Your task to perform on an android device: Check the weather Image 0: 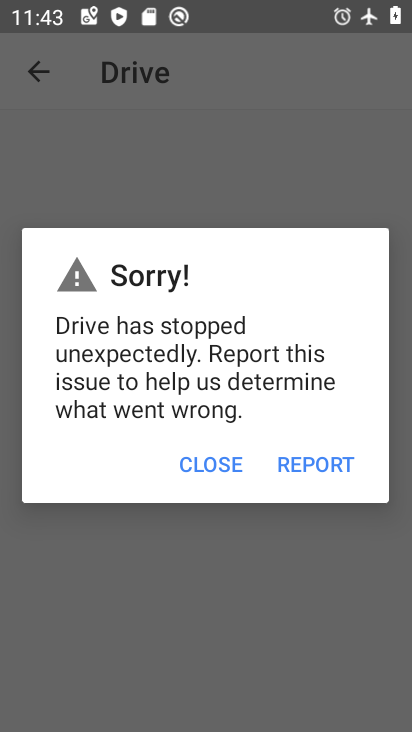
Step 0: press home button
Your task to perform on an android device: Check the weather Image 1: 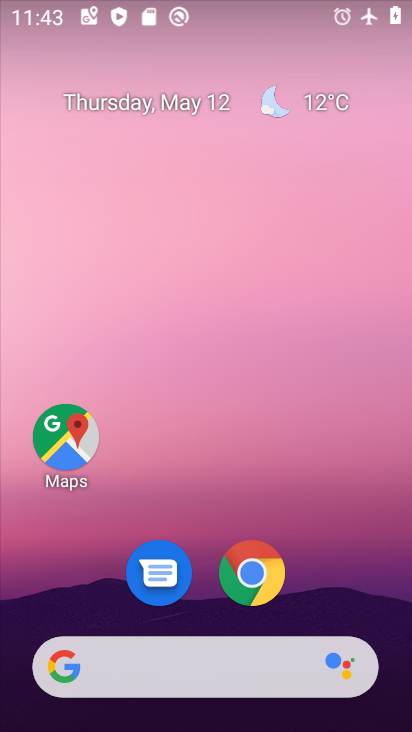
Step 1: click (254, 659)
Your task to perform on an android device: Check the weather Image 2: 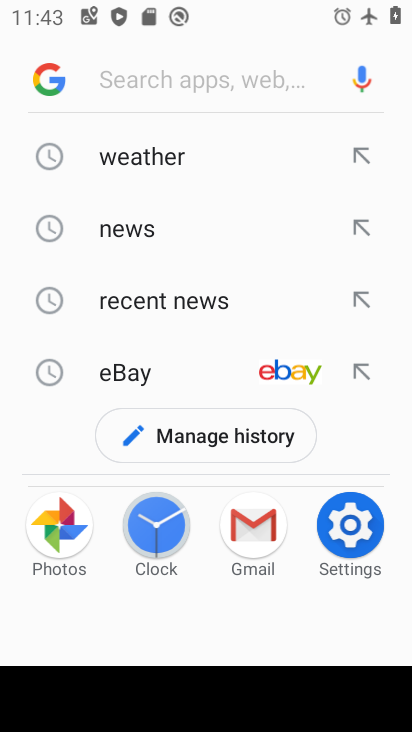
Step 2: click (155, 154)
Your task to perform on an android device: Check the weather Image 3: 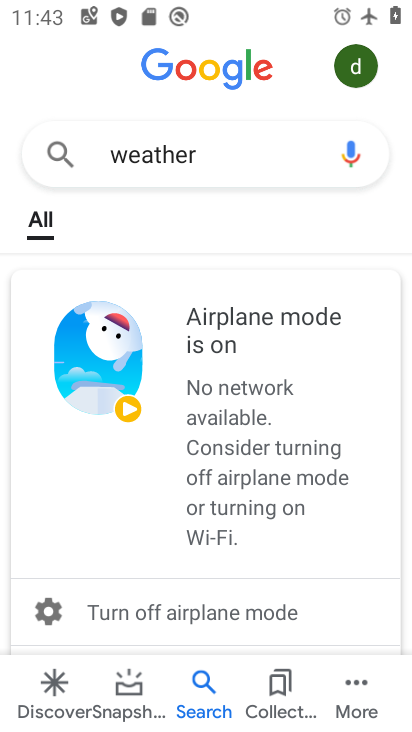
Step 3: task complete